Your task to perform on an android device: Open Youtube and go to the subscriptions tab Image 0: 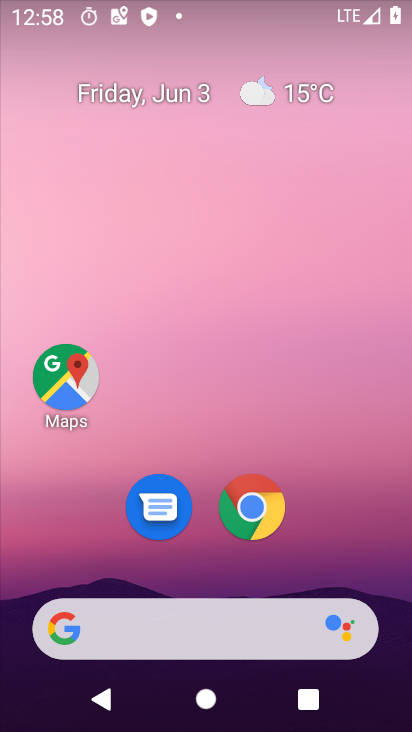
Step 0: drag from (385, 642) to (295, 81)
Your task to perform on an android device: Open Youtube and go to the subscriptions tab Image 1: 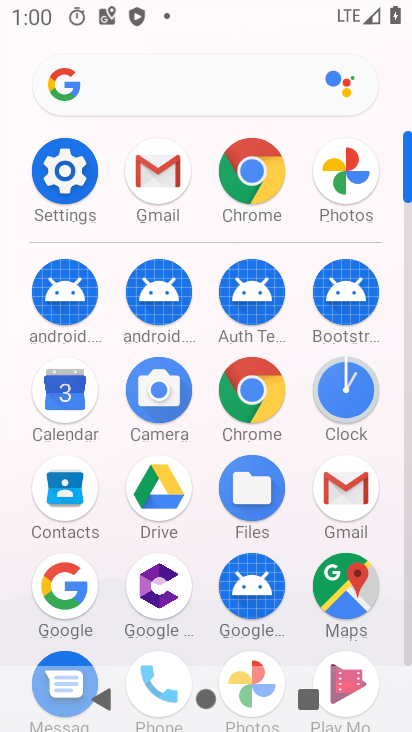
Step 1: drag from (296, 631) to (302, 190)
Your task to perform on an android device: Open Youtube and go to the subscriptions tab Image 2: 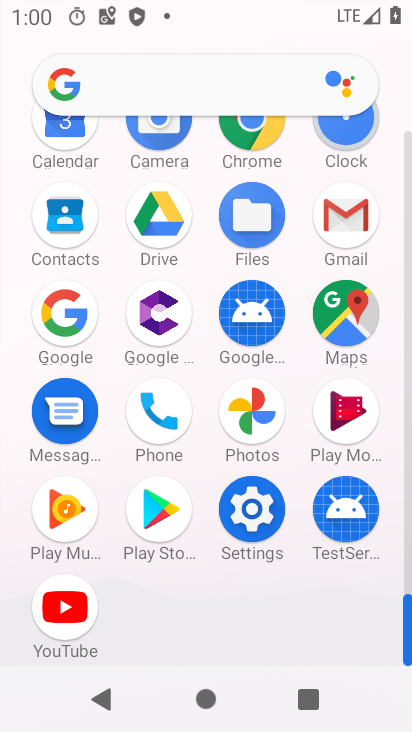
Step 2: click (62, 601)
Your task to perform on an android device: Open Youtube and go to the subscriptions tab Image 3: 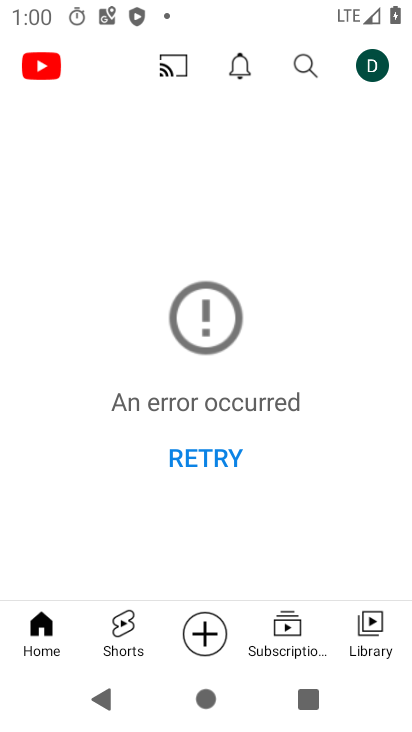
Step 3: click (202, 452)
Your task to perform on an android device: Open Youtube and go to the subscriptions tab Image 4: 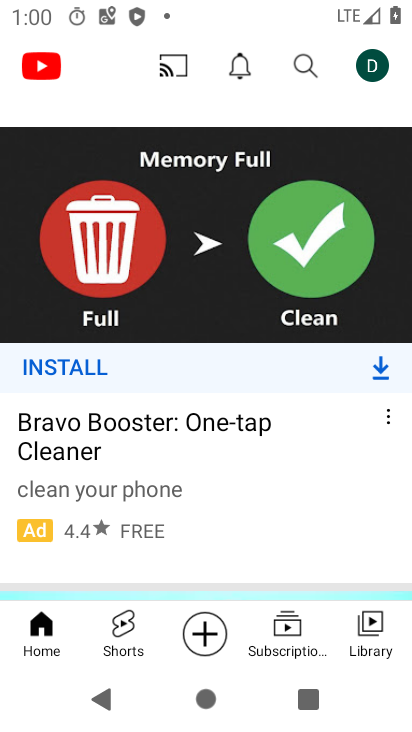
Step 4: click (366, 623)
Your task to perform on an android device: Open Youtube and go to the subscriptions tab Image 5: 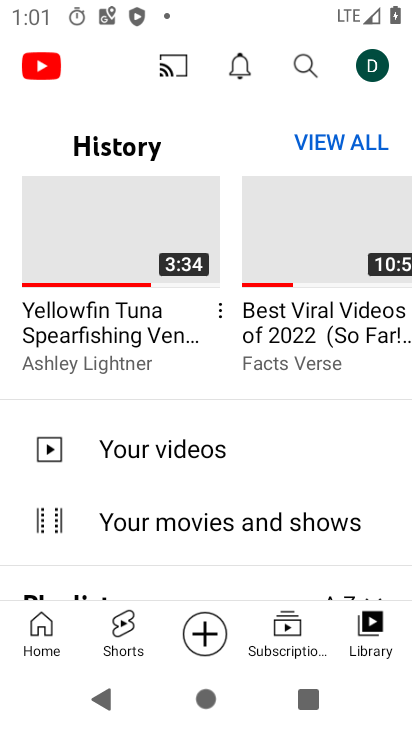
Step 5: click (286, 632)
Your task to perform on an android device: Open Youtube and go to the subscriptions tab Image 6: 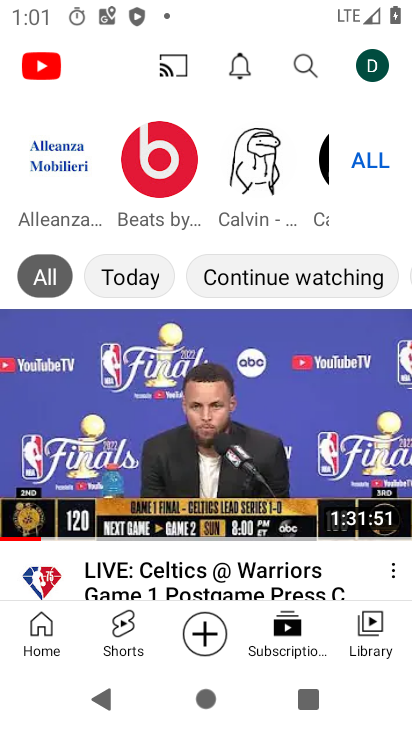
Step 6: task complete